Your task to perform on an android device: Open Google Chrome and click the shortcut for Amazon.com Image 0: 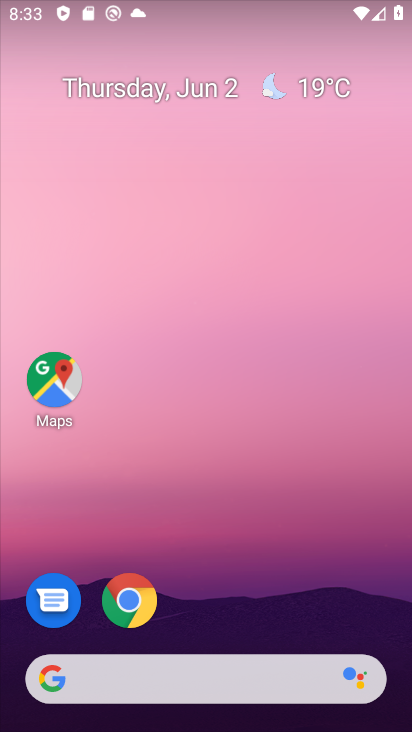
Step 0: click (139, 597)
Your task to perform on an android device: Open Google Chrome and click the shortcut for Amazon.com Image 1: 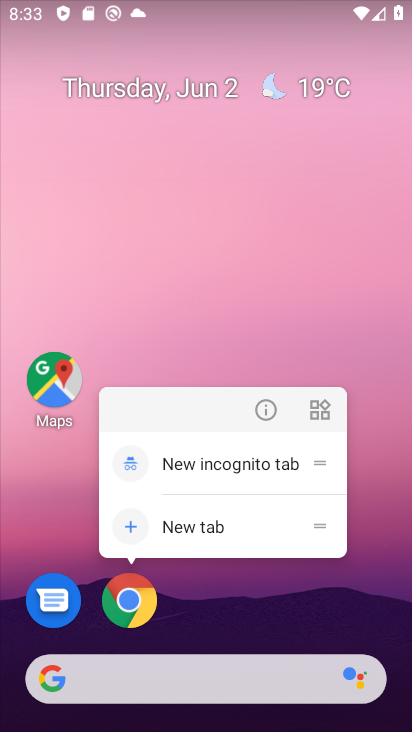
Step 1: click (143, 608)
Your task to perform on an android device: Open Google Chrome and click the shortcut for Amazon.com Image 2: 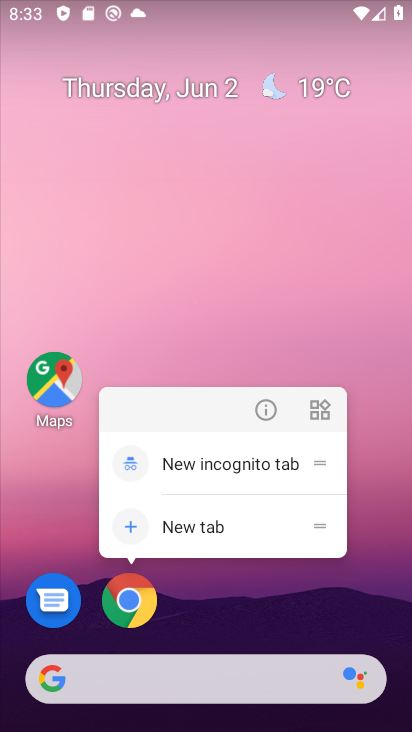
Step 2: click (143, 606)
Your task to perform on an android device: Open Google Chrome and click the shortcut for Amazon.com Image 3: 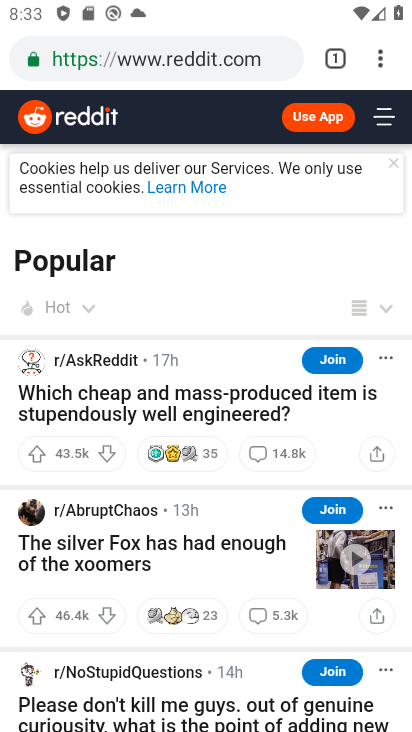
Step 3: click (335, 62)
Your task to perform on an android device: Open Google Chrome and click the shortcut for Amazon.com Image 4: 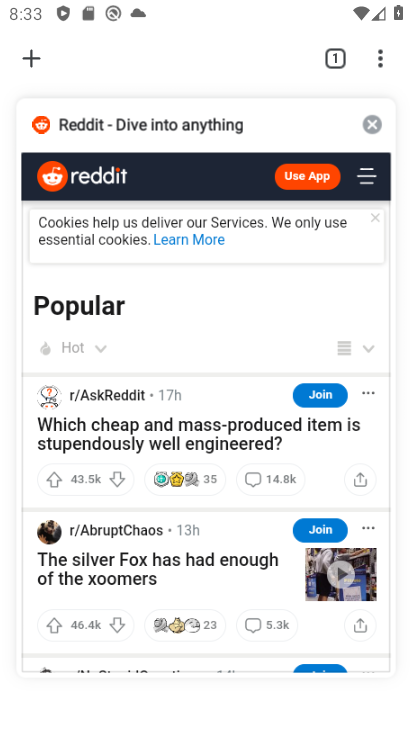
Step 4: click (24, 55)
Your task to perform on an android device: Open Google Chrome and click the shortcut for Amazon.com Image 5: 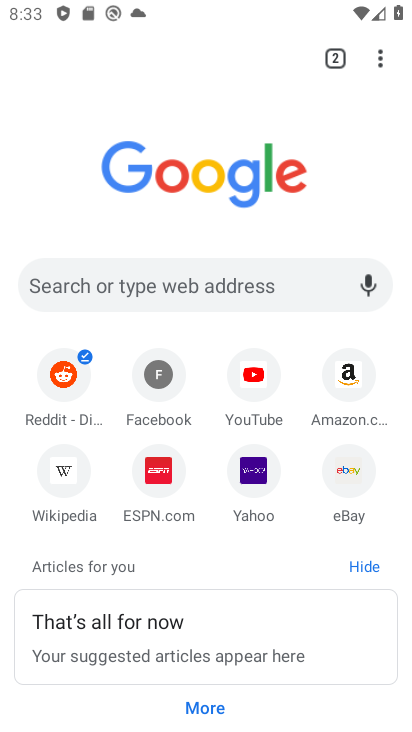
Step 5: click (348, 383)
Your task to perform on an android device: Open Google Chrome and click the shortcut for Amazon.com Image 6: 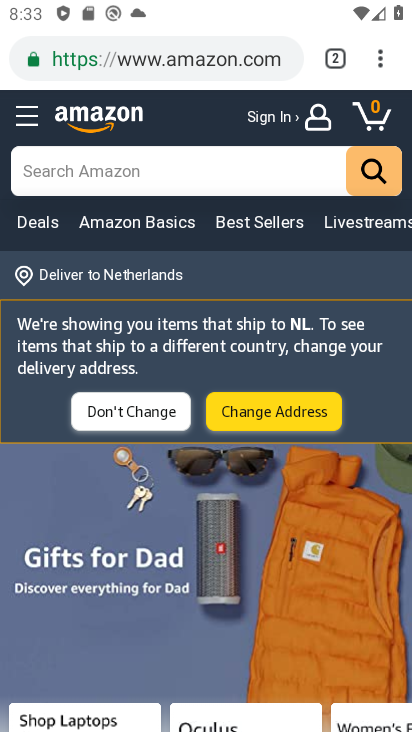
Step 6: task complete